Your task to perform on an android device: turn on notifications settings in the gmail app Image 0: 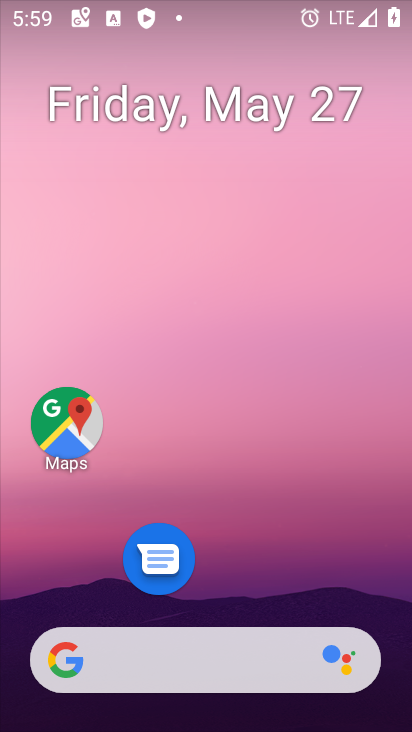
Step 0: drag from (293, 669) to (364, 146)
Your task to perform on an android device: turn on notifications settings in the gmail app Image 1: 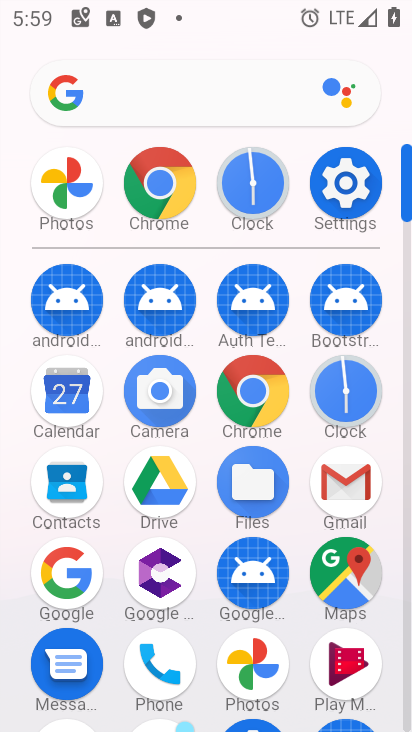
Step 1: click (338, 532)
Your task to perform on an android device: turn on notifications settings in the gmail app Image 2: 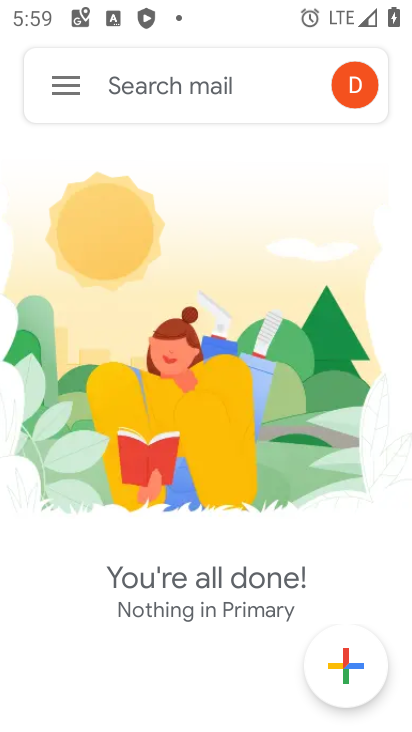
Step 2: click (66, 91)
Your task to perform on an android device: turn on notifications settings in the gmail app Image 3: 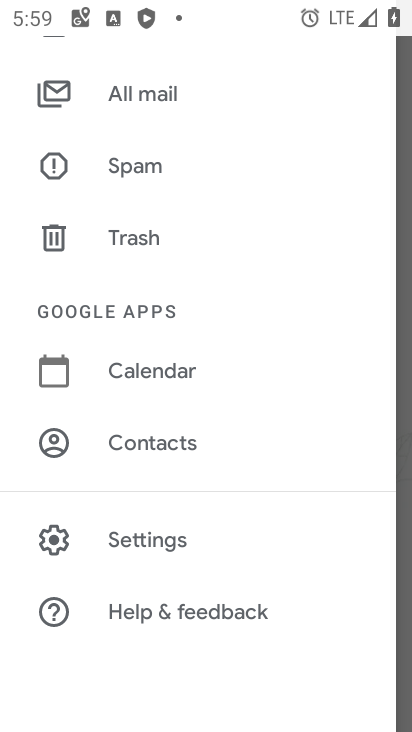
Step 3: click (187, 536)
Your task to perform on an android device: turn on notifications settings in the gmail app Image 4: 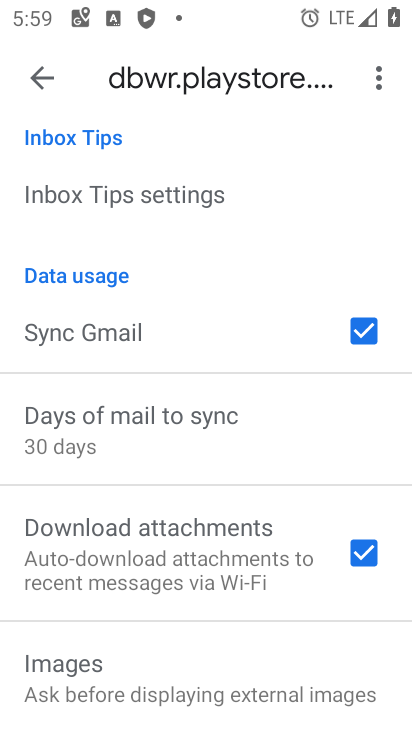
Step 4: drag from (220, 702) to (286, 108)
Your task to perform on an android device: turn on notifications settings in the gmail app Image 5: 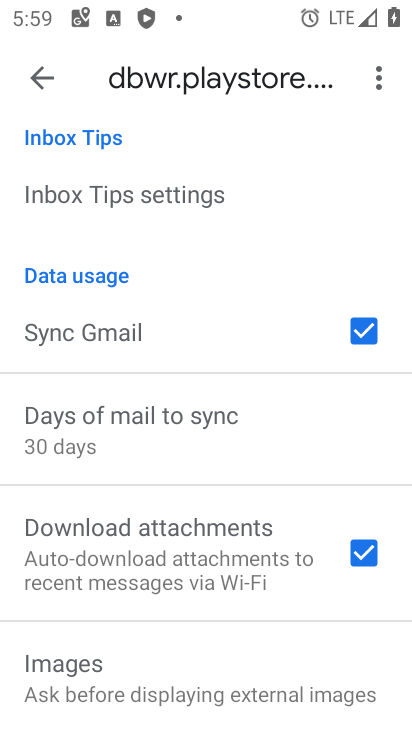
Step 5: drag from (279, 211) to (129, 721)
Your task to perform on an android device: turn on notifications settings in the gmail app Image 6: 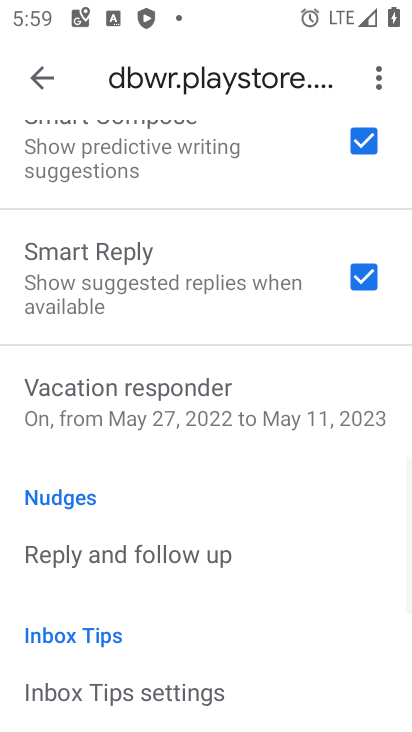
Step 6: drag from (167, 304) to (184, 724)
Your task to perform on an android device: turn on notifications settings in the gmail app Image 7: 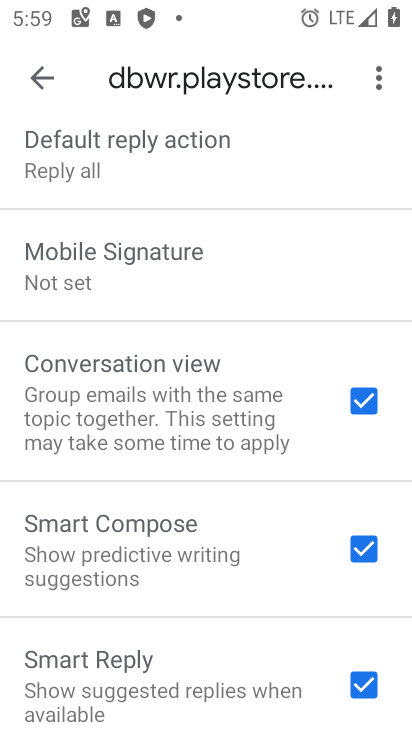
Step 7: drag from (219, 236) to (175, 729)
Your task to perform on an android device: turn on notifications settings in the gmail app Image 8: 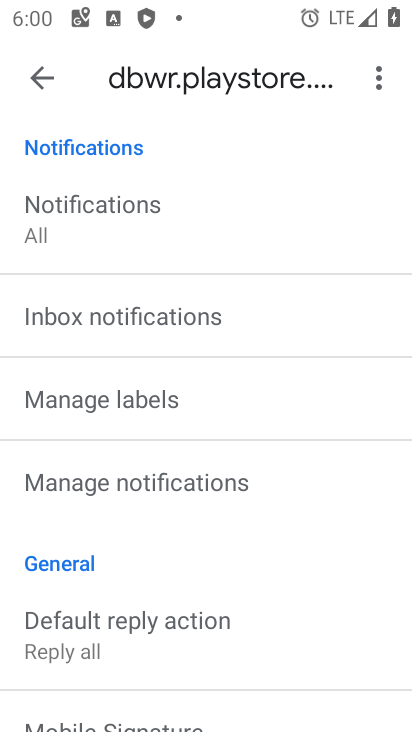
Step 8: click (150, 471)
Your task to perform on an android device: turn on notifications settings in the gmail app Image 9: 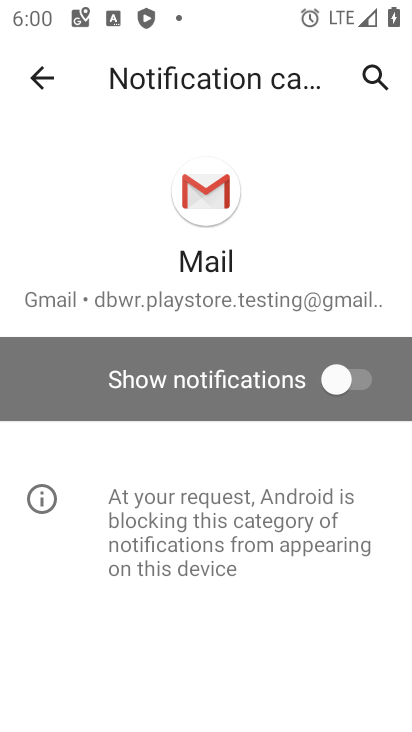
Step 9: click (359, 375)
Your task to perform on an android device: turn on notifications settings in the gmail app Image 10: 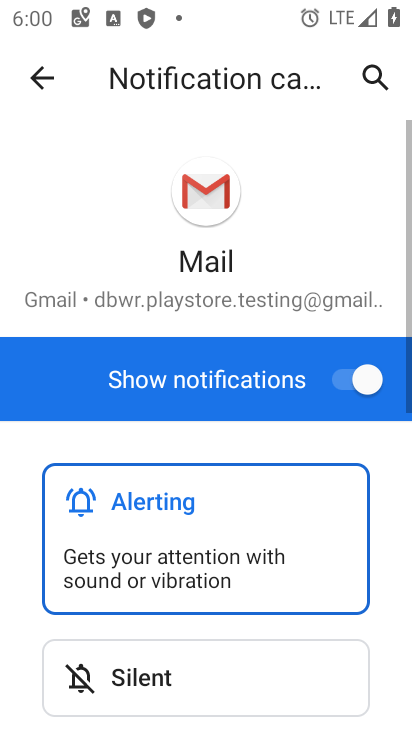
Step 10: task complete